Your task to perform on an android device: turn on notifications settings in the gmail app Image 0: 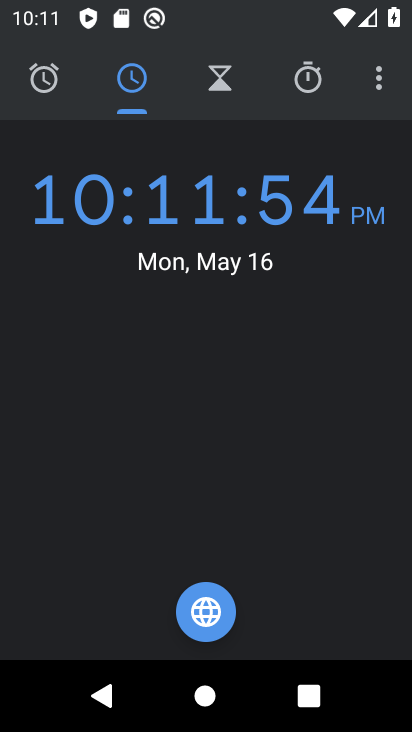
Step 0: press home button
Your task to perform on an android device: turn on notifications settings in the gmail app Image 1: 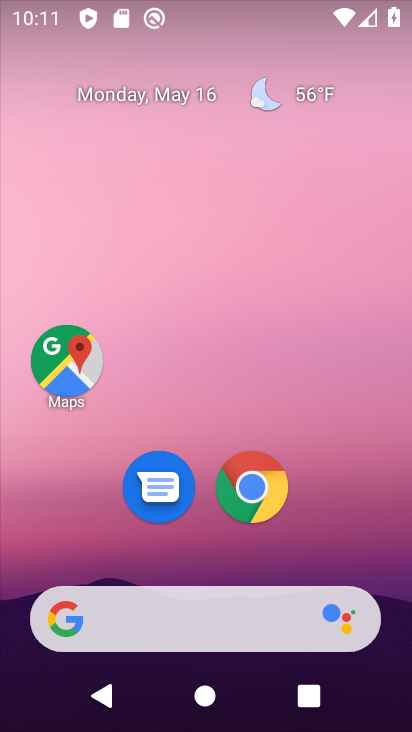
Step 1: drag from (312, 555) to (167, 111)
Your task to perform on an android device: turn on notifications settings in the gmail app Image 2: 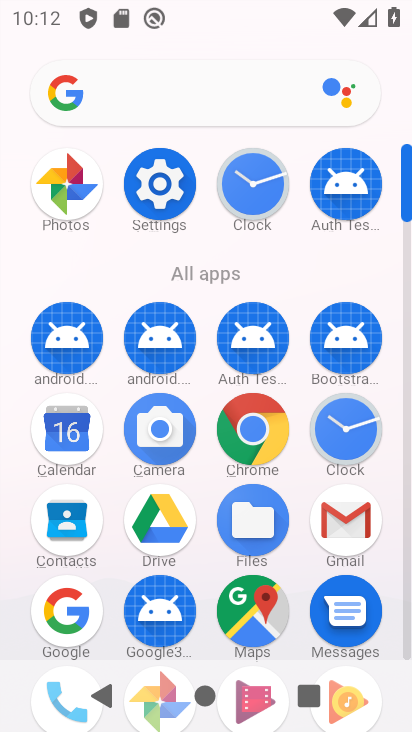
Step 2: click (339, 534)
Your task to perform on an android device: turn on notifications settings in the gmail app Image 3: 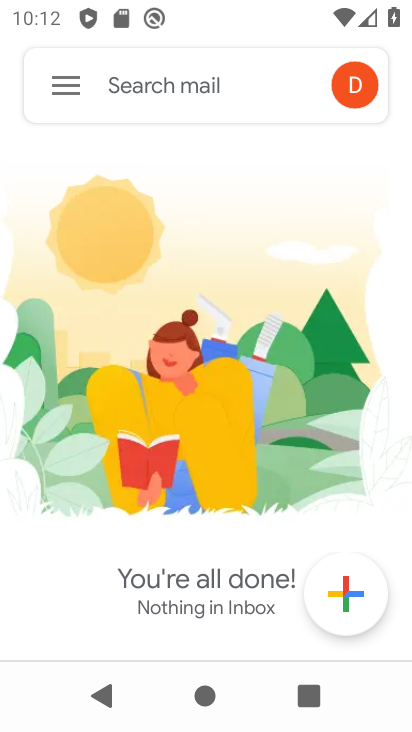
Step 3: click (57, 96)
Your task to perform on an android device: turn on notifications settings in the gmail app Image 4: 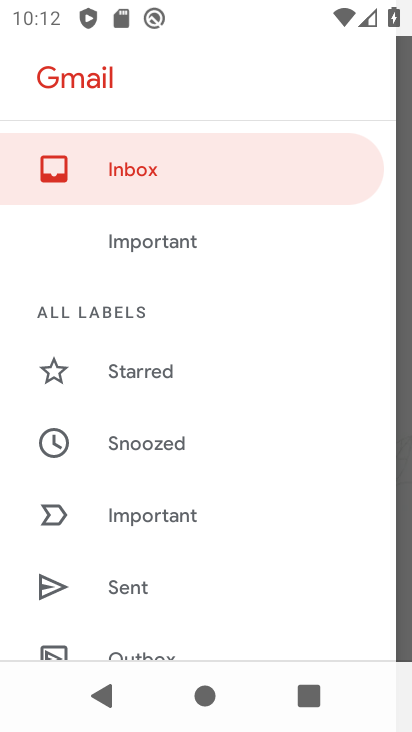
Step 4: drag from (192, 562) to (167, 131)
Your task to perform on an android device: turn on notifications settings in the gmail app Image 5: 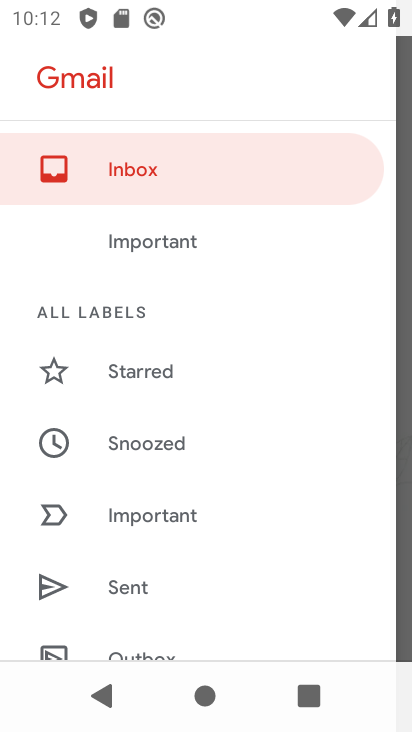
Step 5: drag from (203, 333) to (205, 239)
Your task to perform on an android device: turn on notifications settings in the gmail app Image 6: 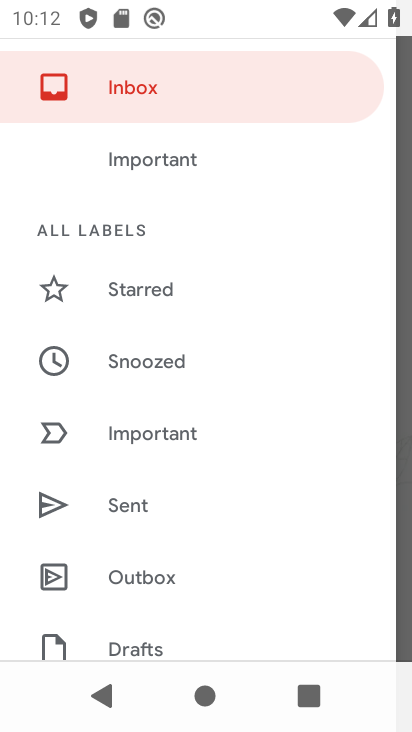
Step 6: drag from (168, 541) to (187, 264)
Your task to perform on an android device: turn on notifications settings in the gmail app Image 7: 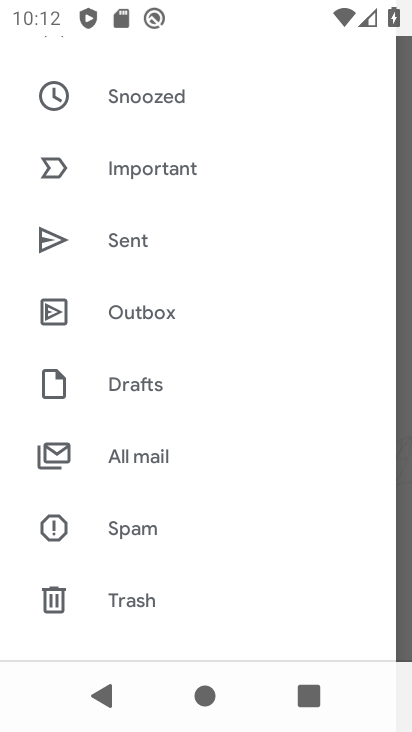
Step 7: drag from (138, 571) to (201, 220)
Your task to perform on an android device: turn on notifications settings in the gmail app Image 8: 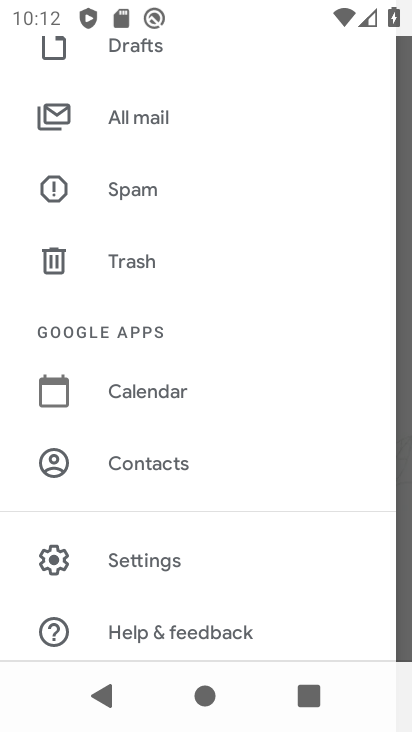
Step 8: click (142, 564)
Your task to perform on an android device: turn on notifications settings in the gmail app Image 9: 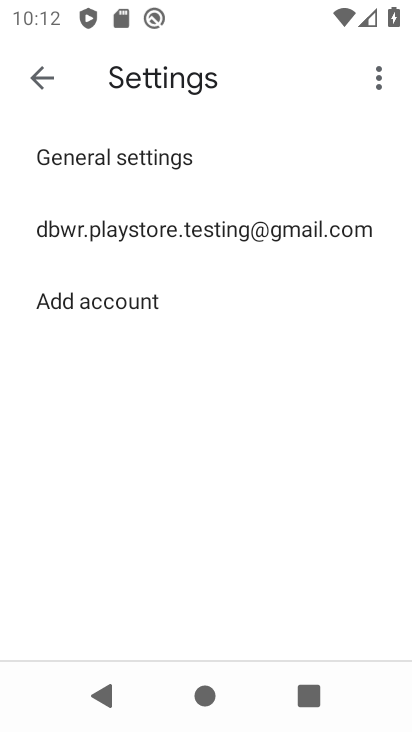
Step 9: click (138, 235)
Your task to perform on an android device: turn on notifications settings in the gmail app Image 10: 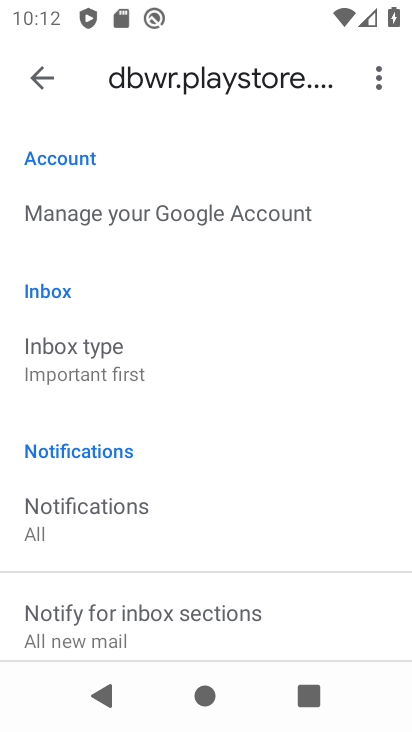
Step 10: click (88, 530)
Your task to perform on an android device: turn on notifications settings in the gmail app Image 11: 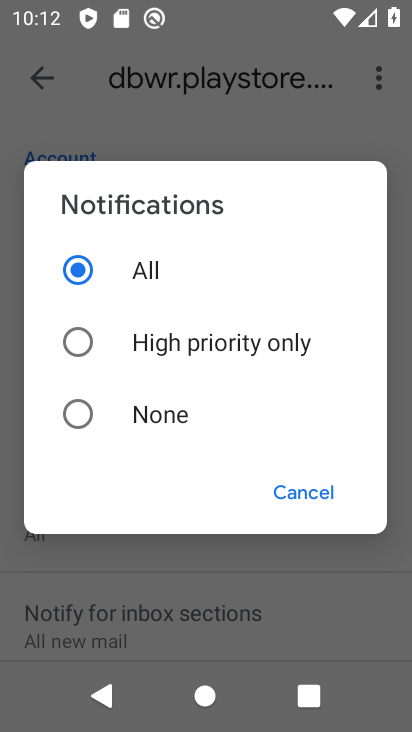
Step 11: task complete